Your task to perform on an android device: turn on sleep mode Image 0: 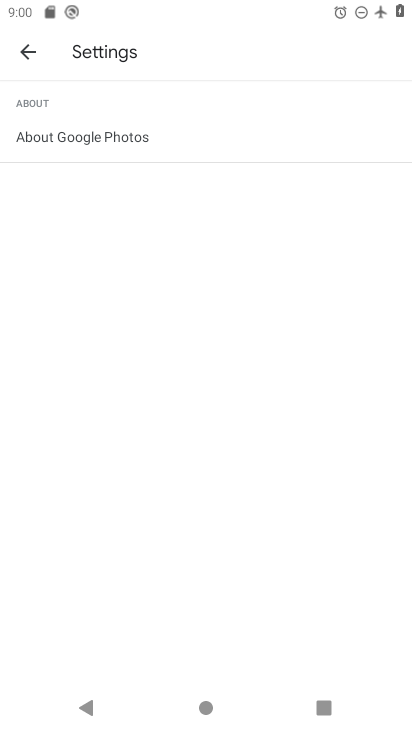
Step 0: press home button
Your task to perform on an android device: turn on sleep mode Image 1: 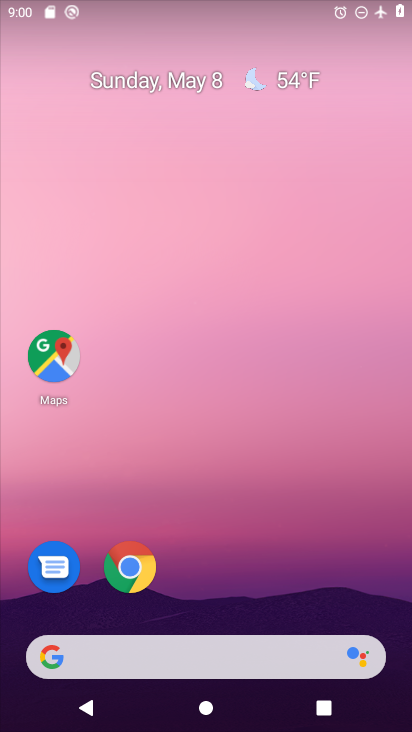
Step 1: drag from (320, 538) to (255, 93)
Your task to perform on an android device: turn on sleep mode Image 2: 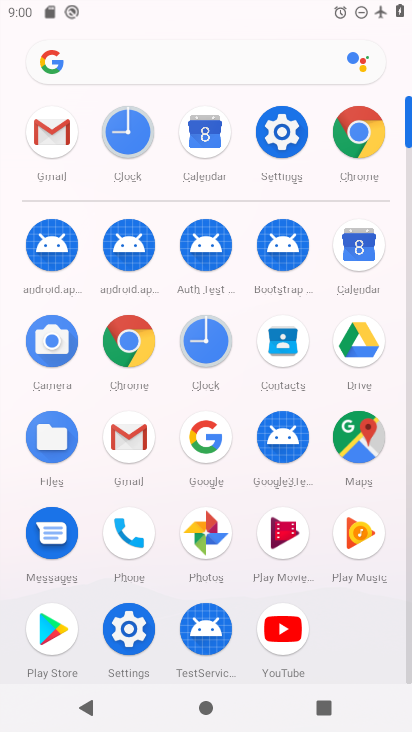
Step 2: click (279, 125)
Your task to perform on an android device: turn on sleep mode Image 3: 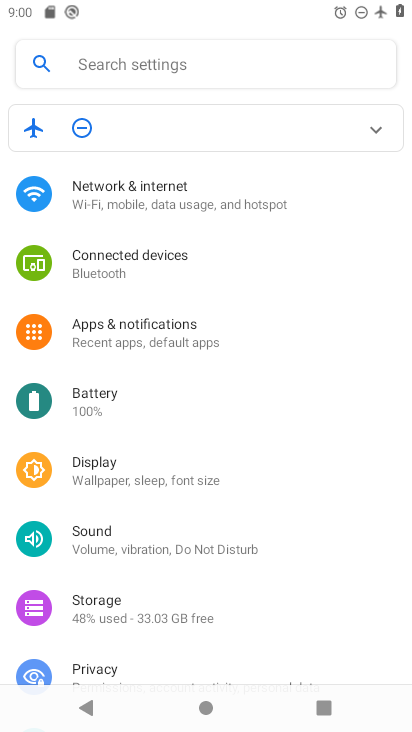
Step 3: drag from (190, 652) to (218, 259)
Your task to perform on an android device: turn on sleep mode Image 4: 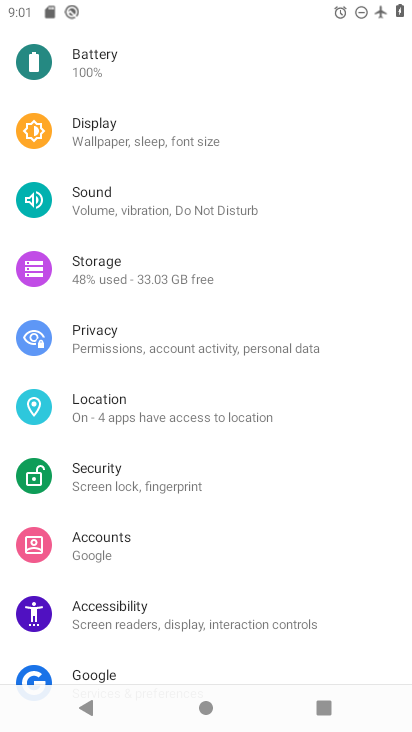
Step 4: drag from (160, 642) to (173, 254)
Your task to perform on an android device: turn on sleep mode Image 5: 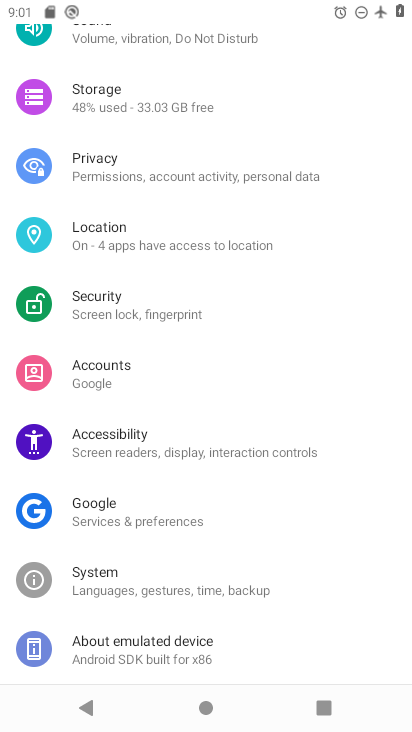
Step 5: drag from (171, 267) to (209, 620)
Your task to perform on an android device: turn on sleep mode Image 6: 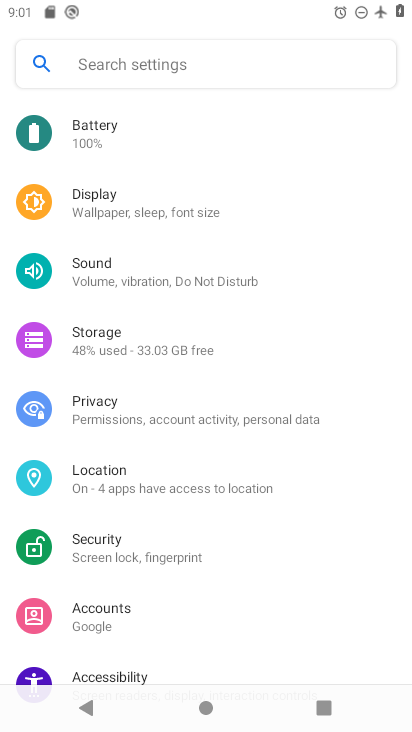
Step 6: click (188, 216)
Your task to perform on an android device: turn on sleep mode Image 7: 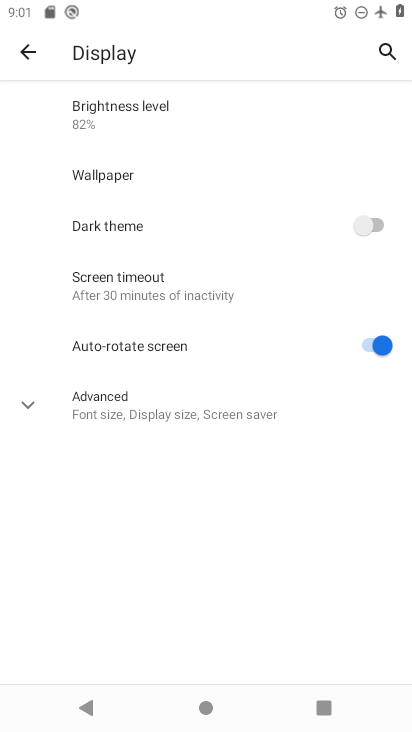
Step 7: click (96, 287)
Your task to perform on an android device: turn on sleep mode Image 8: 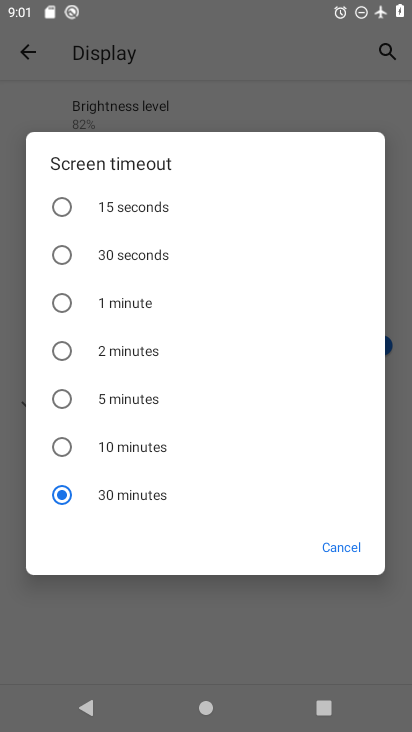
Step 8: task complete